Your task to perform on an android device: change text size in settings app Image 0: 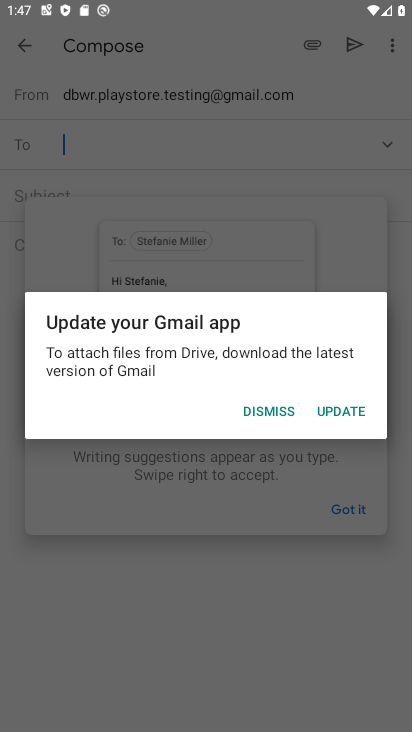
Step 0: press home button
Your task to perform on an android device: change text size in settings app Image 1: 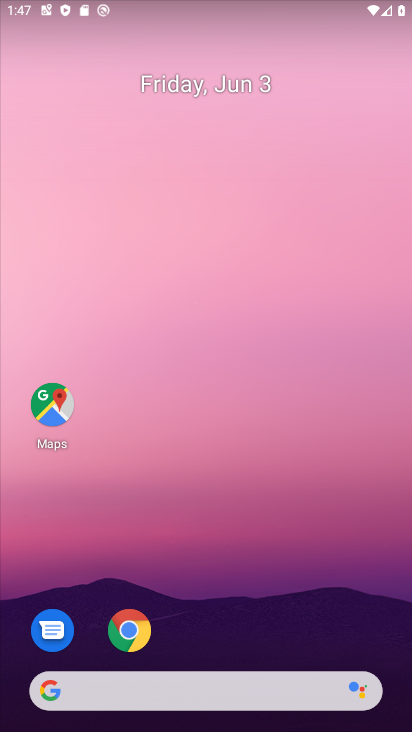
Step 1: drag from (221, 722) to (204, 84)
Your task to perform on an android device: change text size in settings app Image 2: 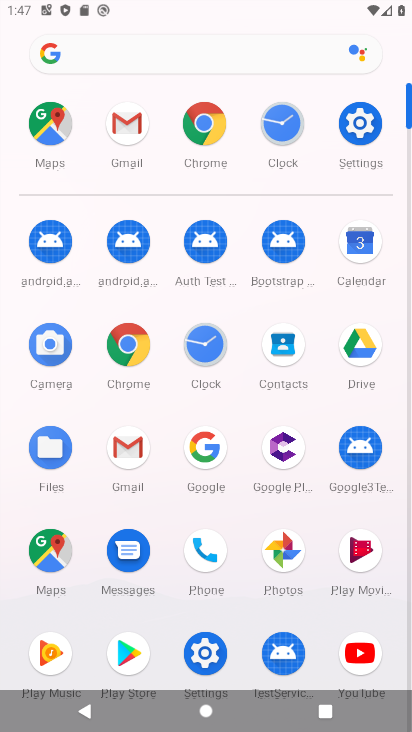
Step 2: click (362, 122)
Your task to perform on an android device: change text size in settings app Image 3: 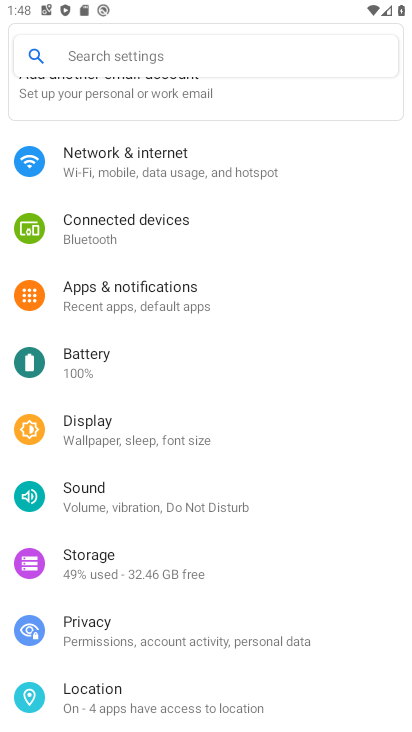
Step 3: click (182, 437)
Your task to perform on an android device: change text size in settings app Image 4: 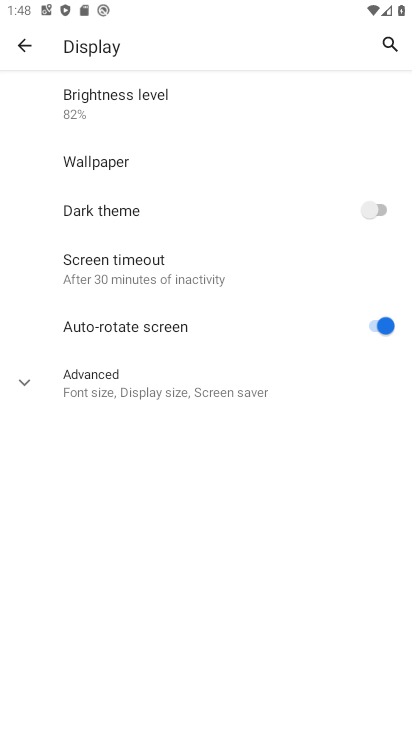
Step 4: click (103, 380)
Your task to perform on an android device: change text size in settings app Image 5: 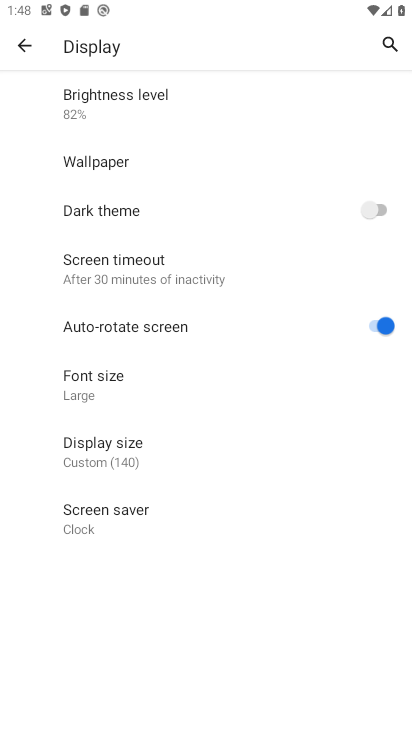
Step 5: click (87, 392)
Your task to perform on an android device: change text size in settings app Image 6: 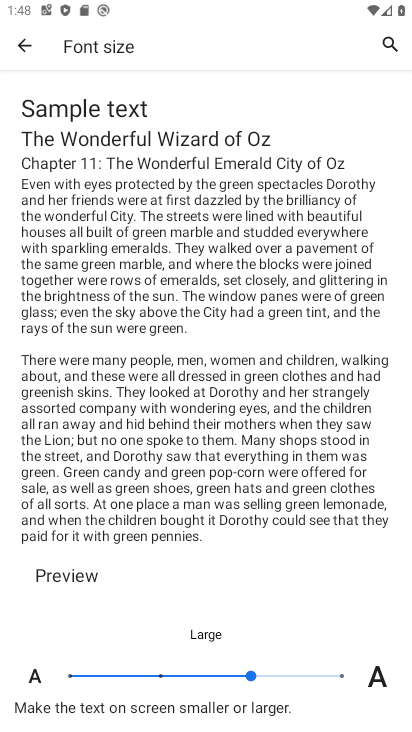
Step 6: click (158, 673)
Your task to perform on an android device: change text size in settings app Image 7: 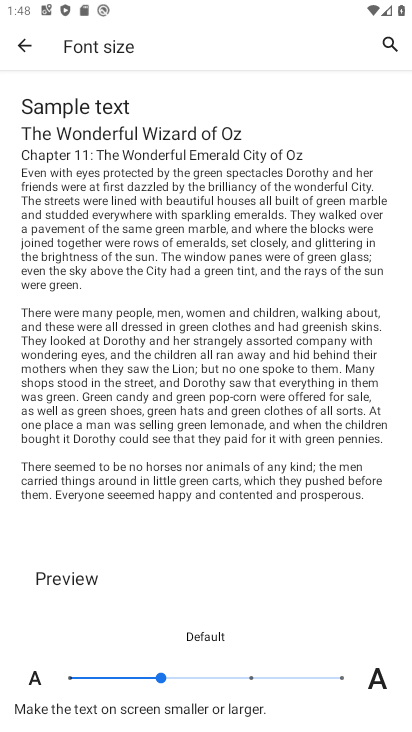
Step 7: task complete